Your task to perform on an android device: Show the shopping cart on ebay. Search for "usb-a" on ebay, select the first entry, and add it to the cart. Image 0: 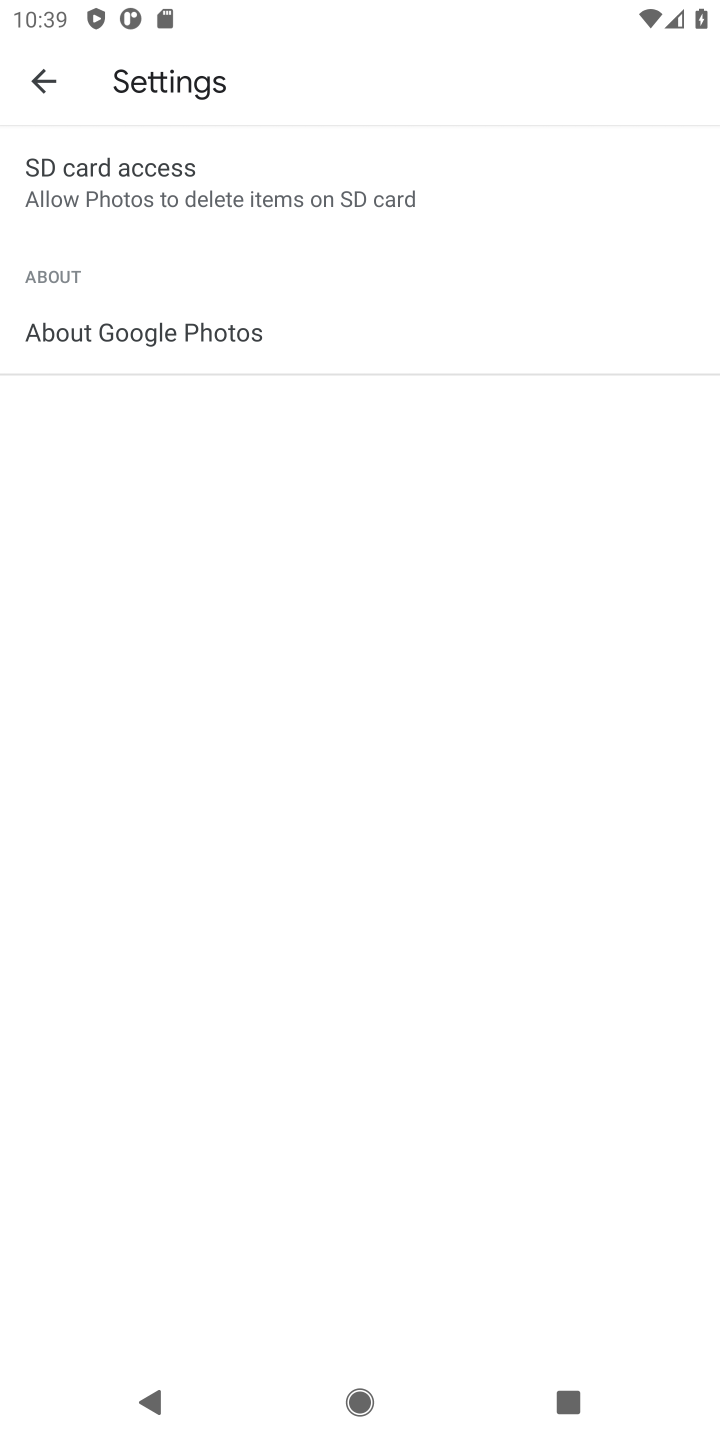
Step 0: press home button
Your task to perform on an android device: Show the shopping cart on ebay. Search for "usb-a" on ebay, select the first entry, and add it to the cart. Image 1: 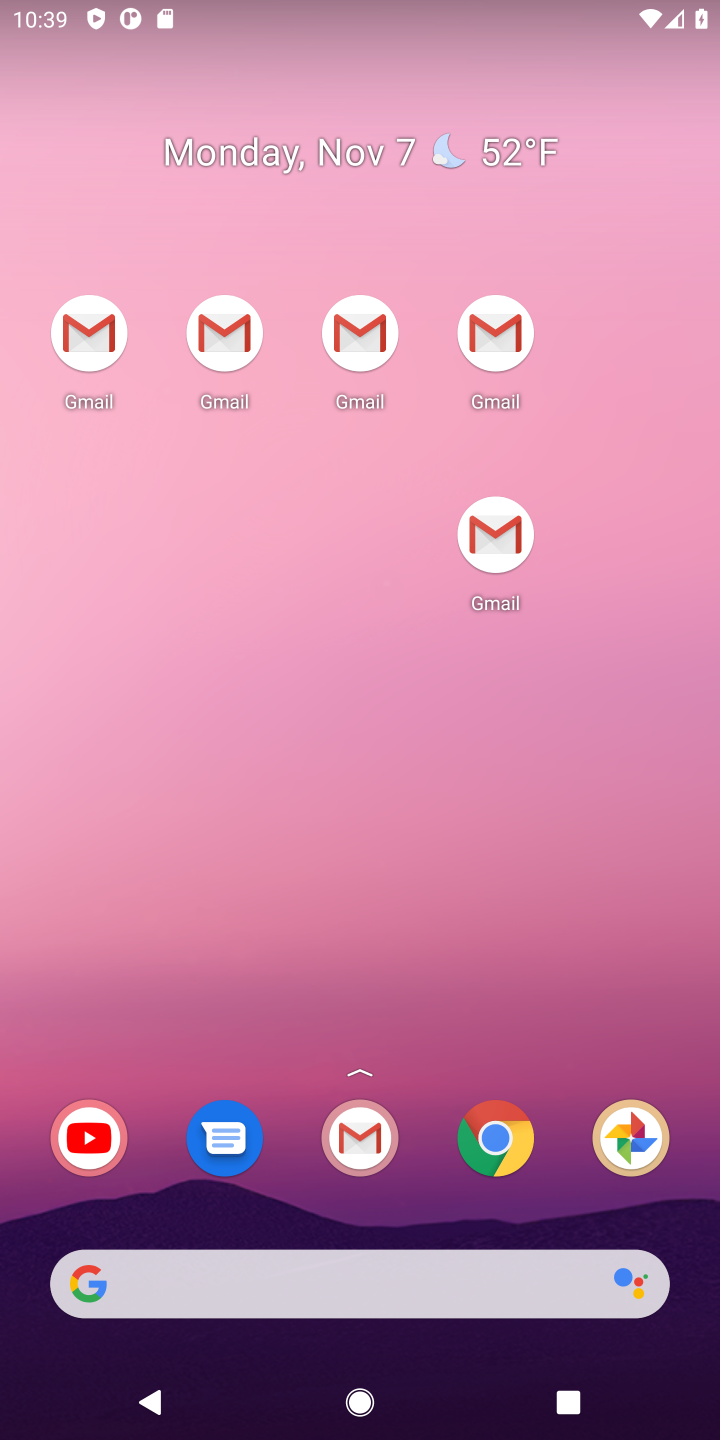
Step 1: drag from (354, 1118) to (489, 62)
Your task to perform on an android device: Show the shopping cart on ebay. Search for "usb-a" on ebay, select the first entry, and add it to the cart. Image 2: 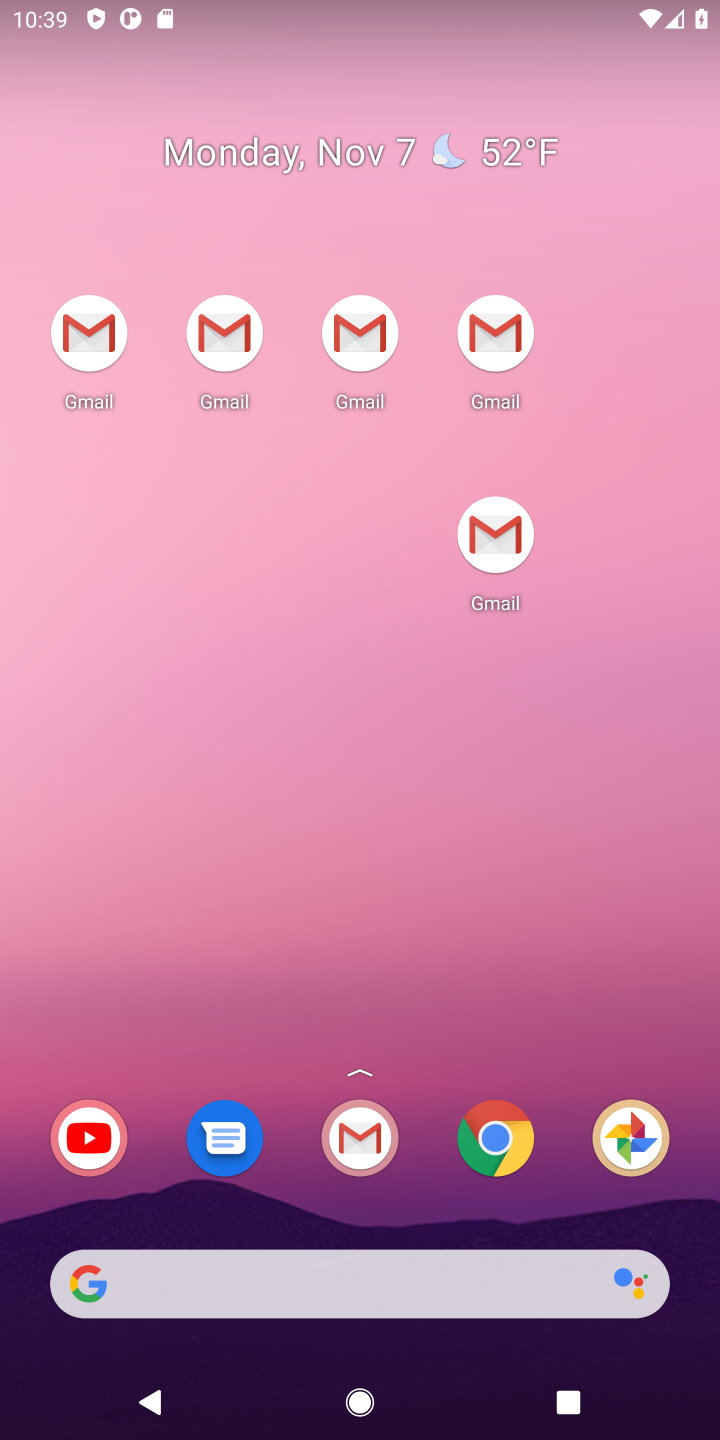
Step 2: drag from (392, 816) to (533, 2)
Your task to perform on an android device: Show the shopping cart on ebay. Search for "usb-a" on ebay, select the first entry, and add it to the cart. Image 3: 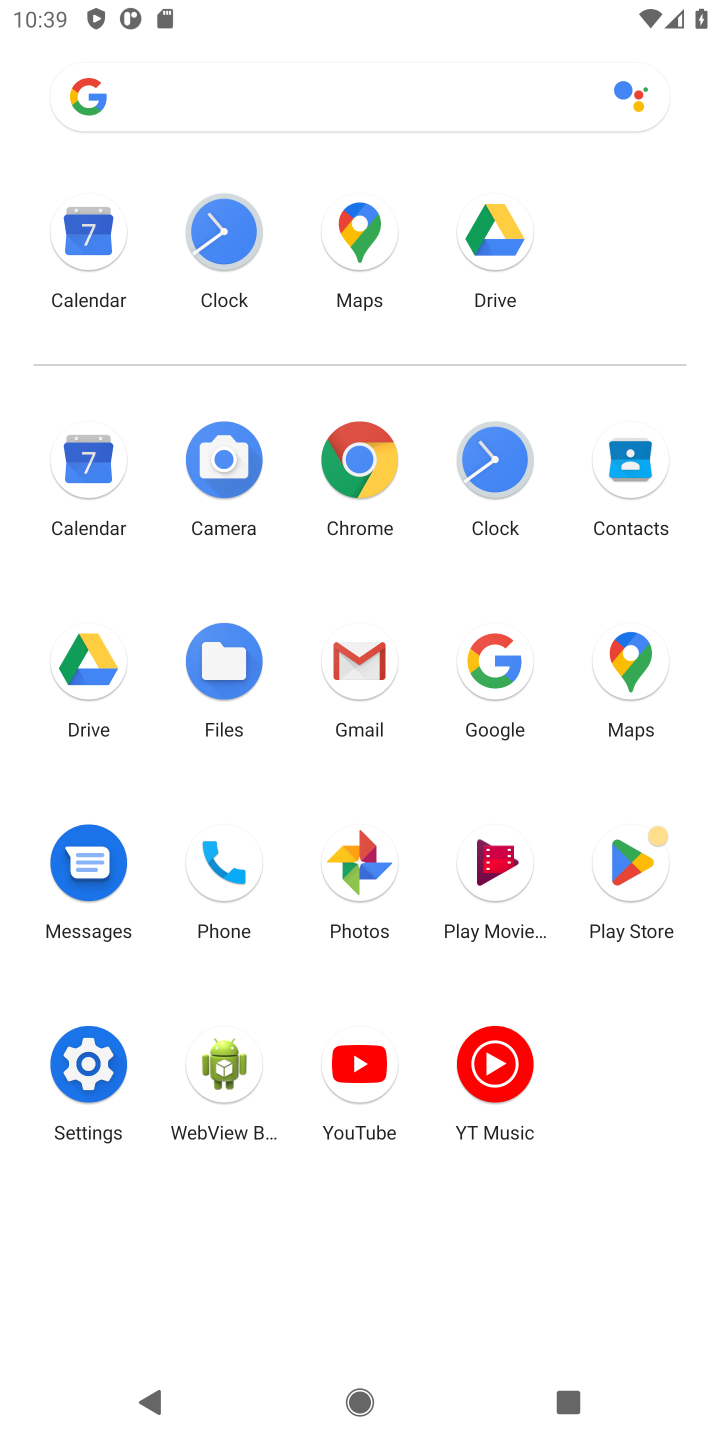
Step 3: click (470, 714)
Your task to perform on an android device: Show the shopping cart on ebay. Search for "usb-a" on ebay, select the first entry, and add it to the cart. Image 4: 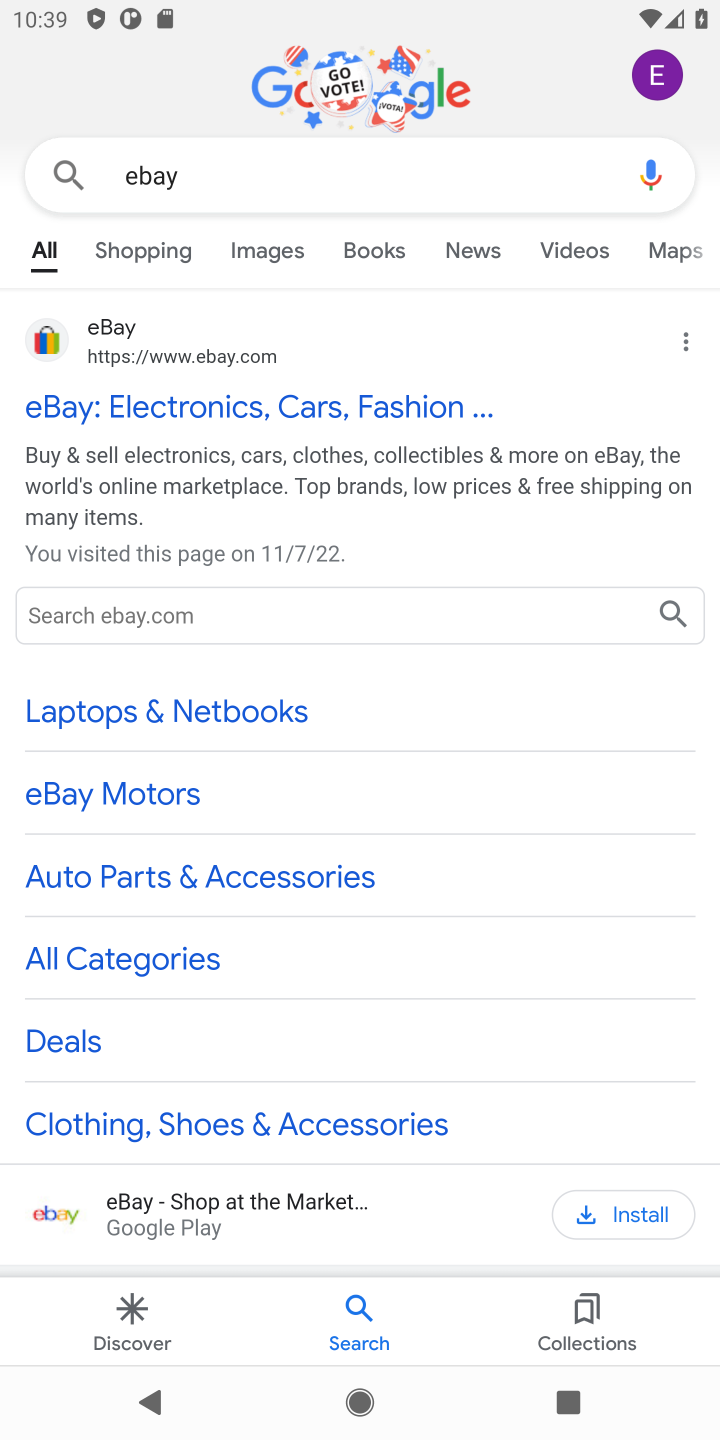
Step 4: click (142, 418)
Your task to perform on an android device: Show the shopping cart on ebay. Search for "usb-a" on ebay, select the first entry, and add it to the cart. Image 5: 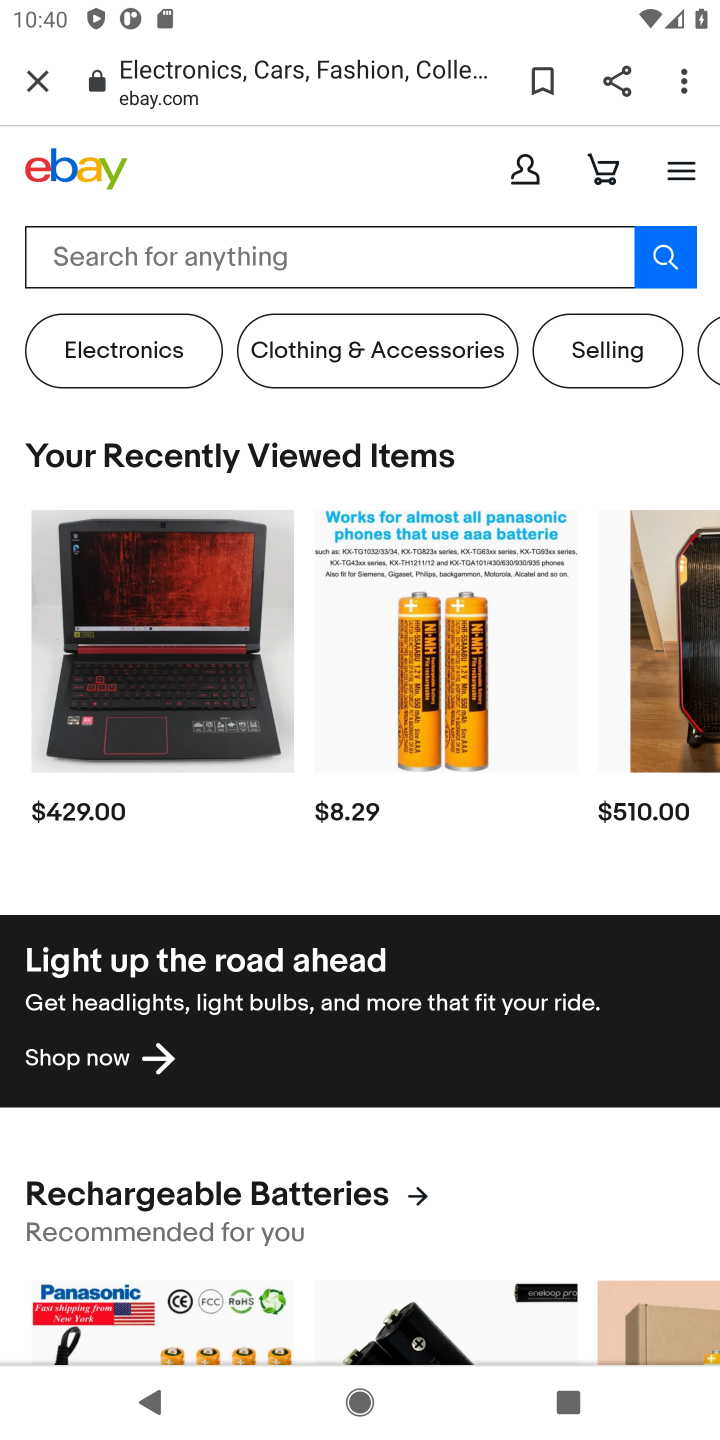
Step 5: click (386, 259)
Your task to perform on an android device: Show the shopping cart on ebay. Search for "usb-a" on ebay, select the first entry, and add it to the cart. Image 6: 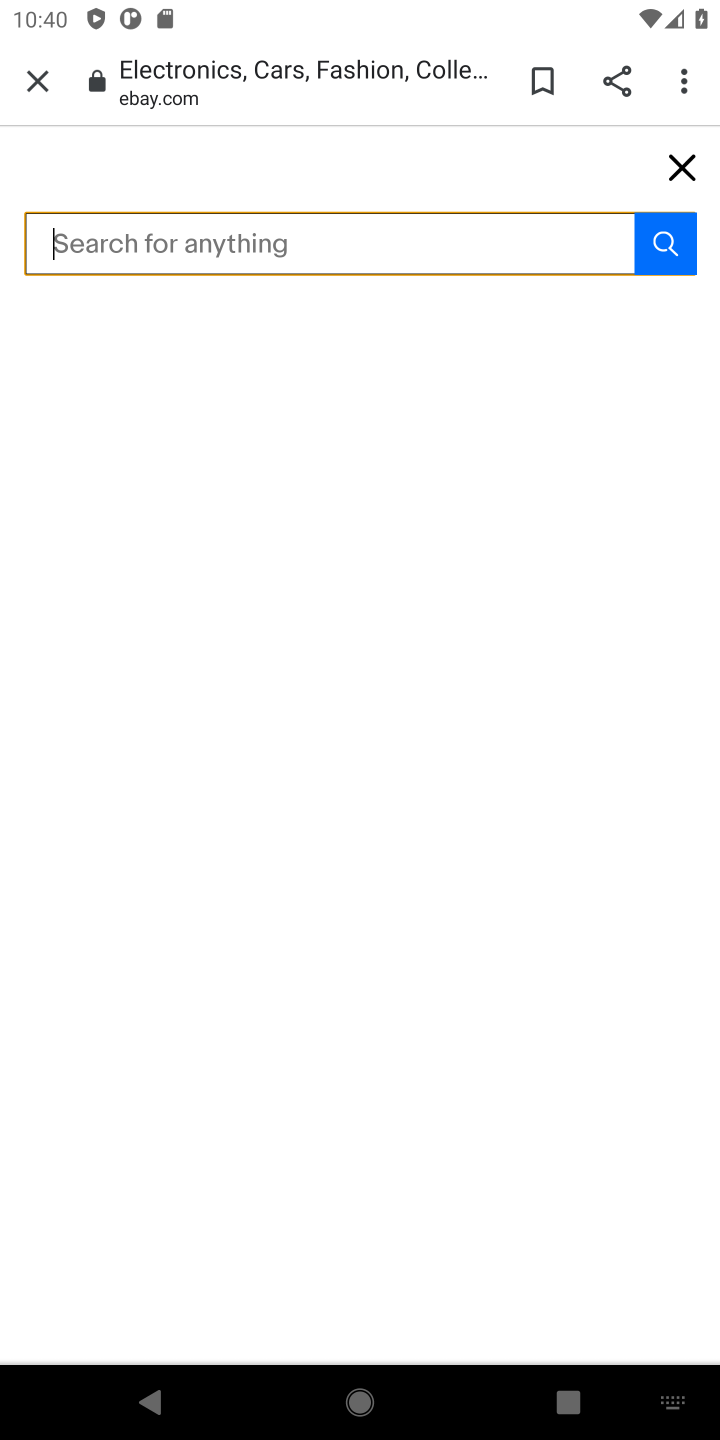
Step 6: type "usb-a"
Your task to perform on an android device: Show the shopping cart on ebay. Search for "usb-a" on ebay, select the first entry, and add it to the cart. Image 7: 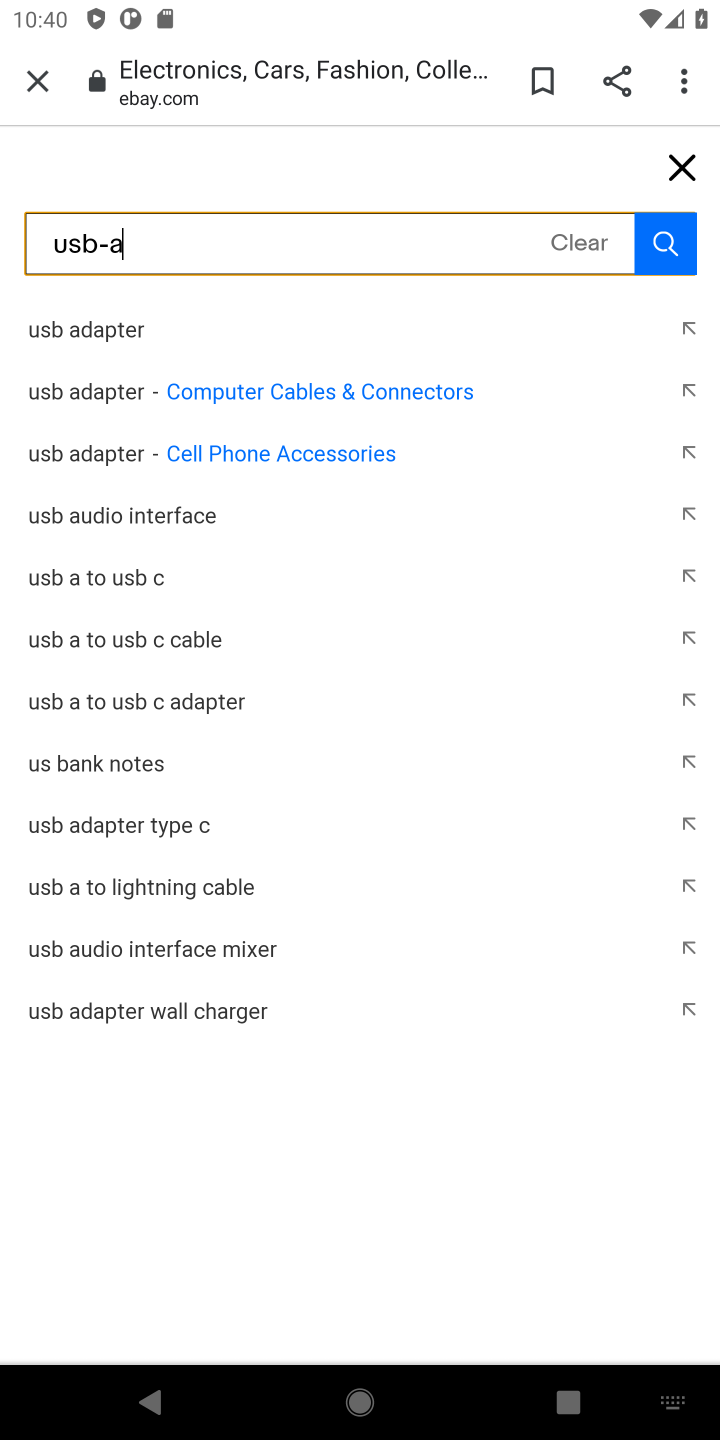
Step 7: click (655, 255)
Your task to perform on an android device: Show the shopping cart on ebay. Search for "usb-a" on ebay, select the first entry, and add it to the cart. Image 8: 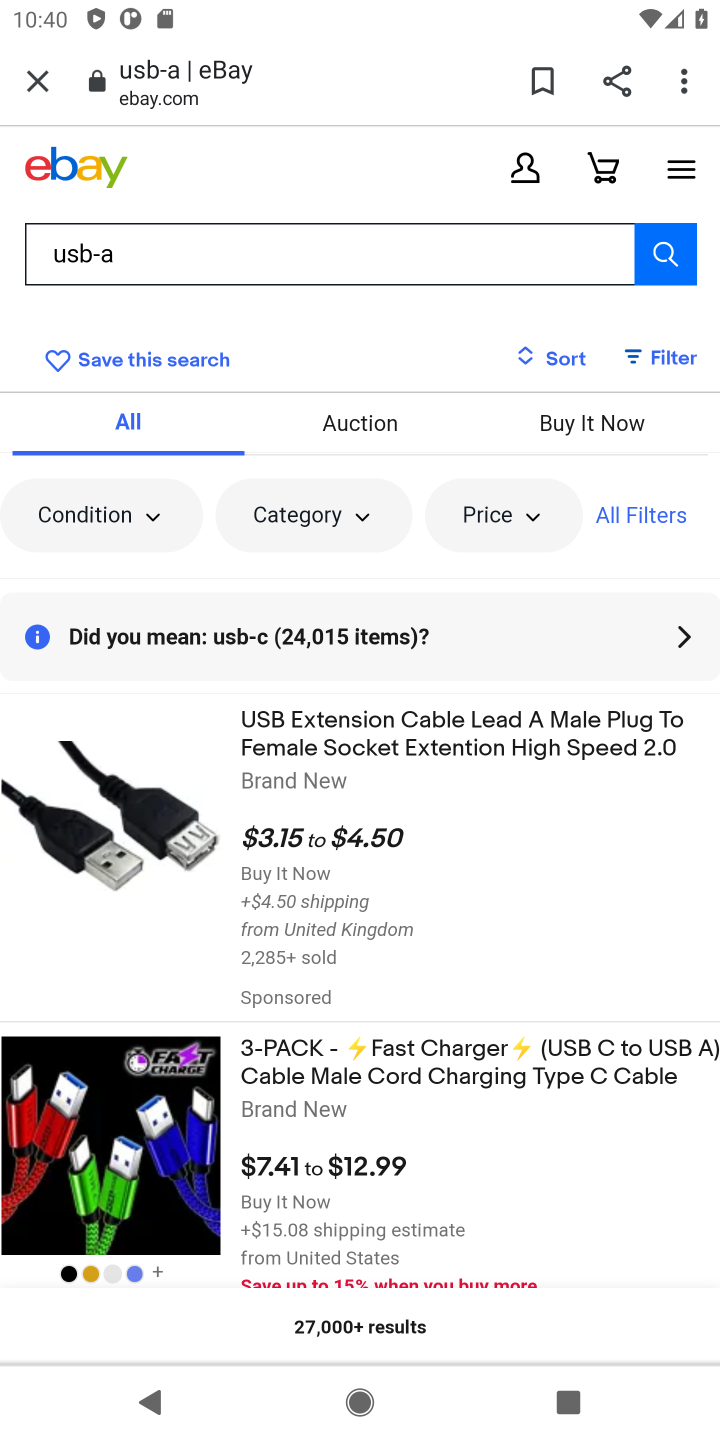
Step 8: click (457, 760)
Your task to perform on an android device: Show the shopping cart on ebay. Search for "usb-a" on ebay, select the first entry, and add it to the cart. Image 9: 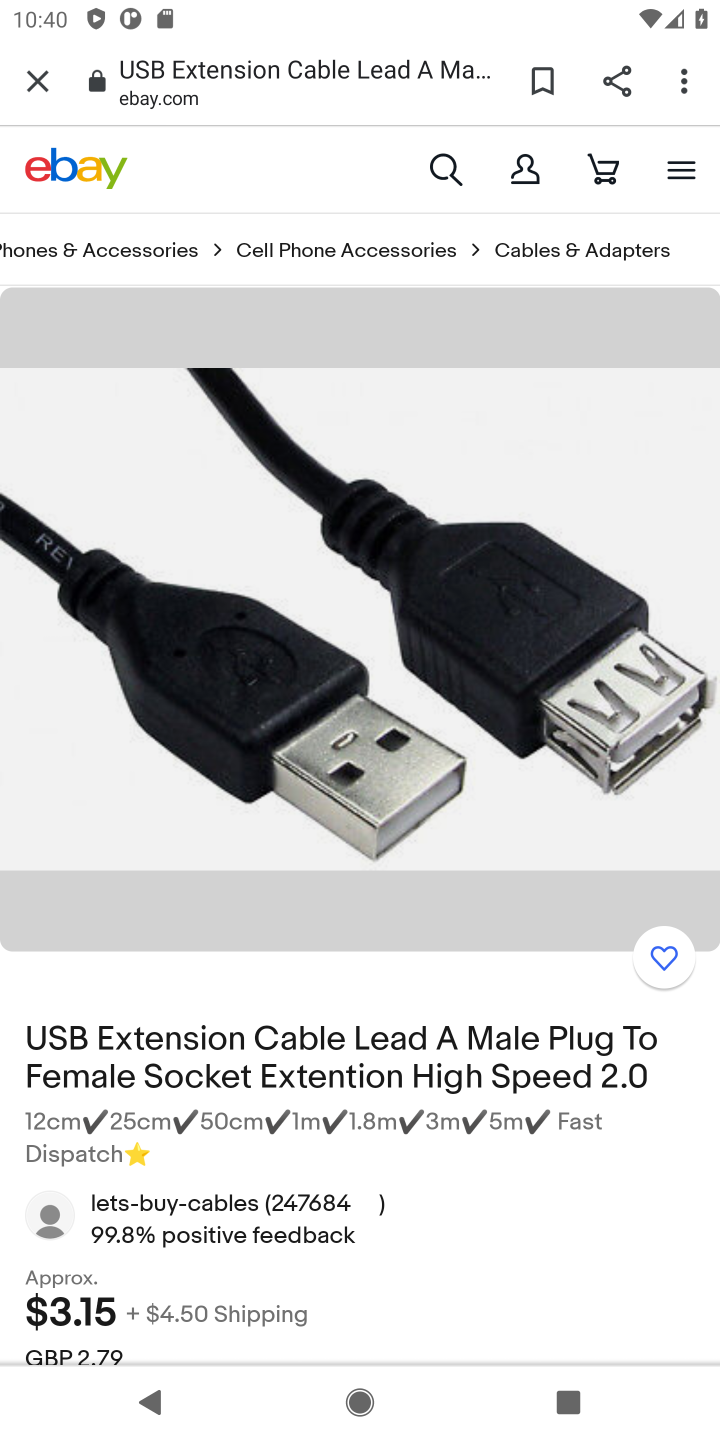
Step 9: drag from (491, 1018) to (537, 195)
Your task to perform on an android device: Show the shopping cart on ebay. Search for "usb-a" on ebay, select the first entry, and add it to the cart. Image 10: 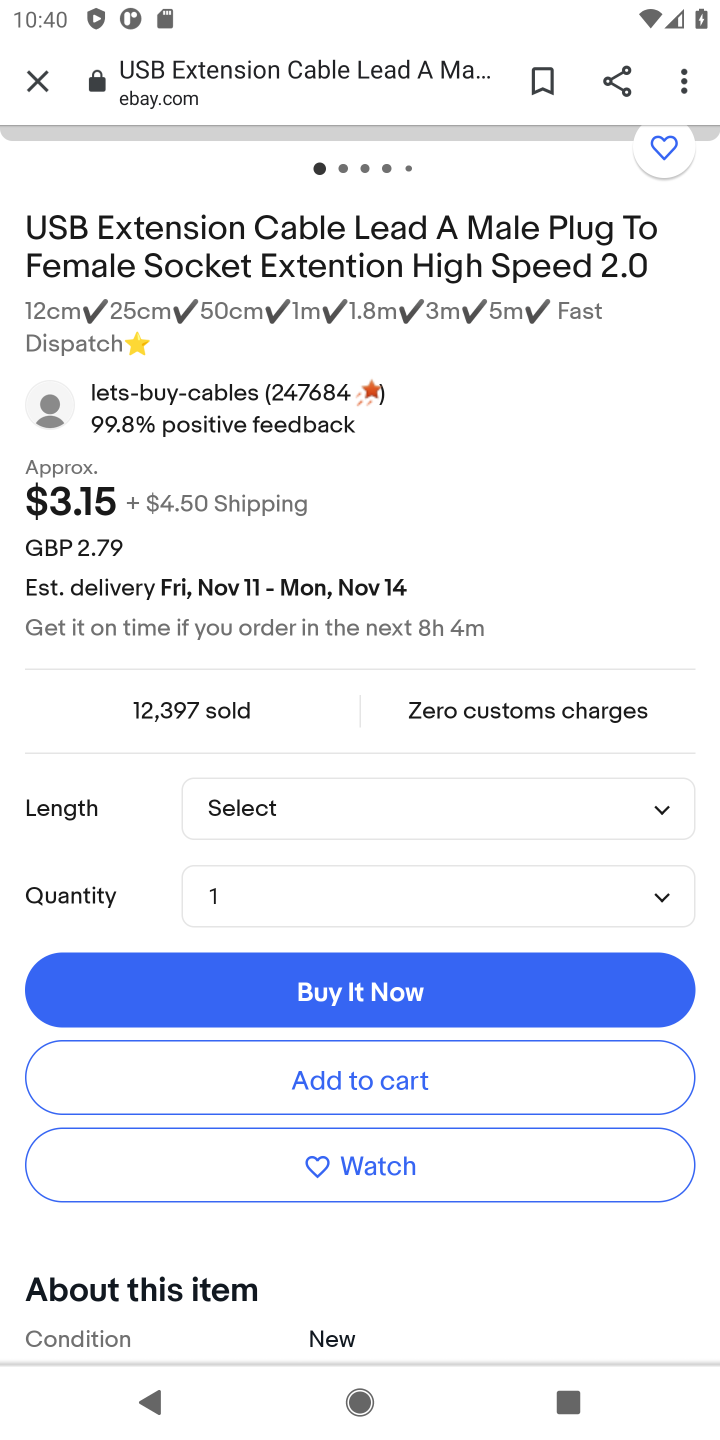
Step 10: click (443, 1080)
Your task to perform on an android device: Show the shopping cart on ebay. Search for "usb-a" on ebay, select the first entry, and add it to the cart. Image 11: 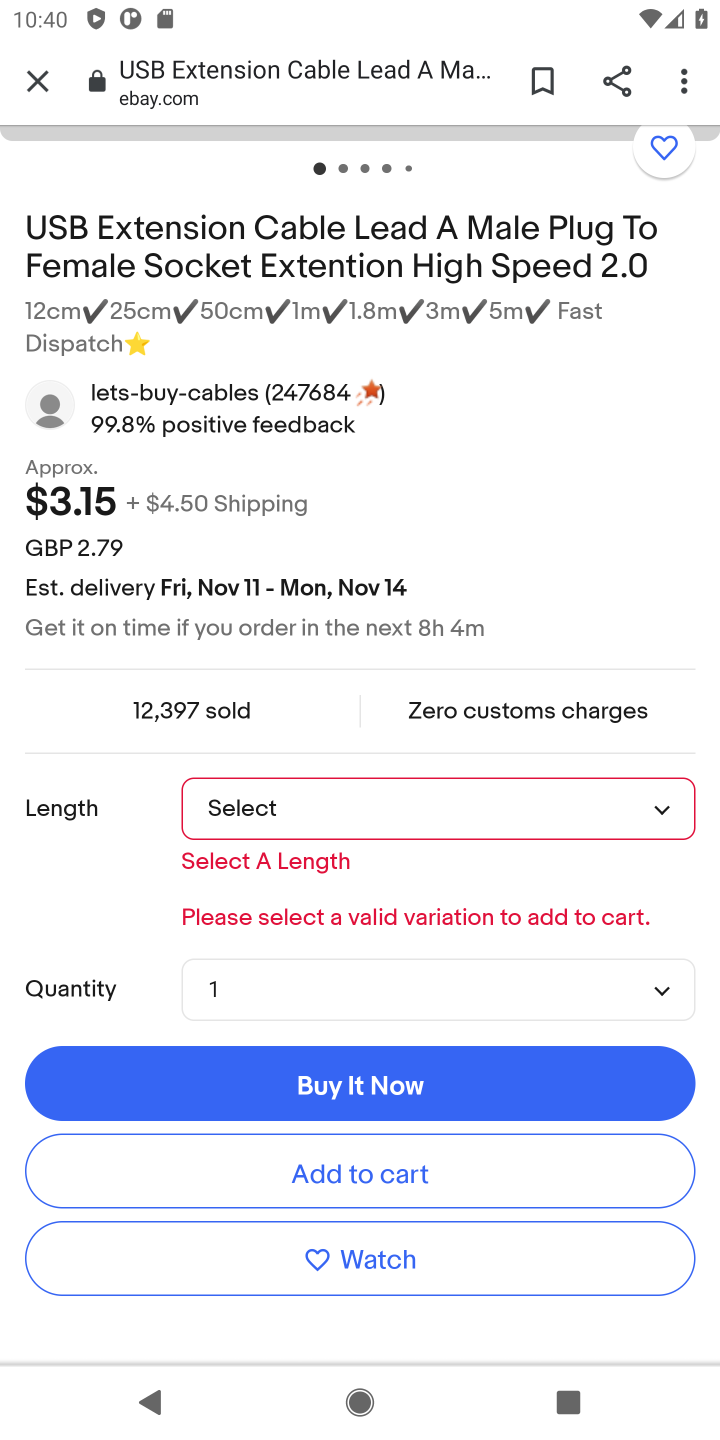
Step 11: click (560, 793)
Your task to perform on an android device: Show the shopping cart on ebay. Search for "usb-a" on ebay, select the first entry, and add it to the cart. Image 12: 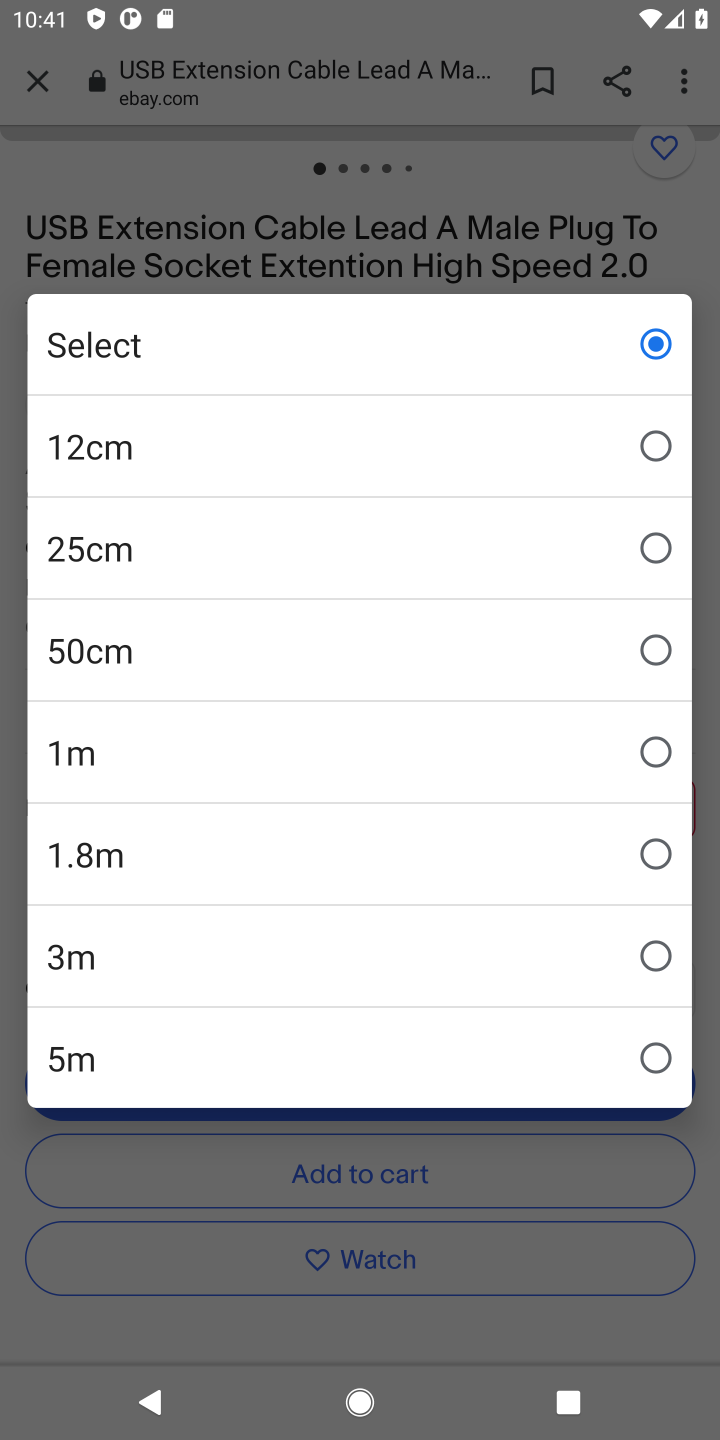
Step 12: click (552, 857)
Your task to perform on an android device: Show the shopping cart on ebay. Search for "usb-a" on ebay, select the first entry, and add it to the cart. Image 13: 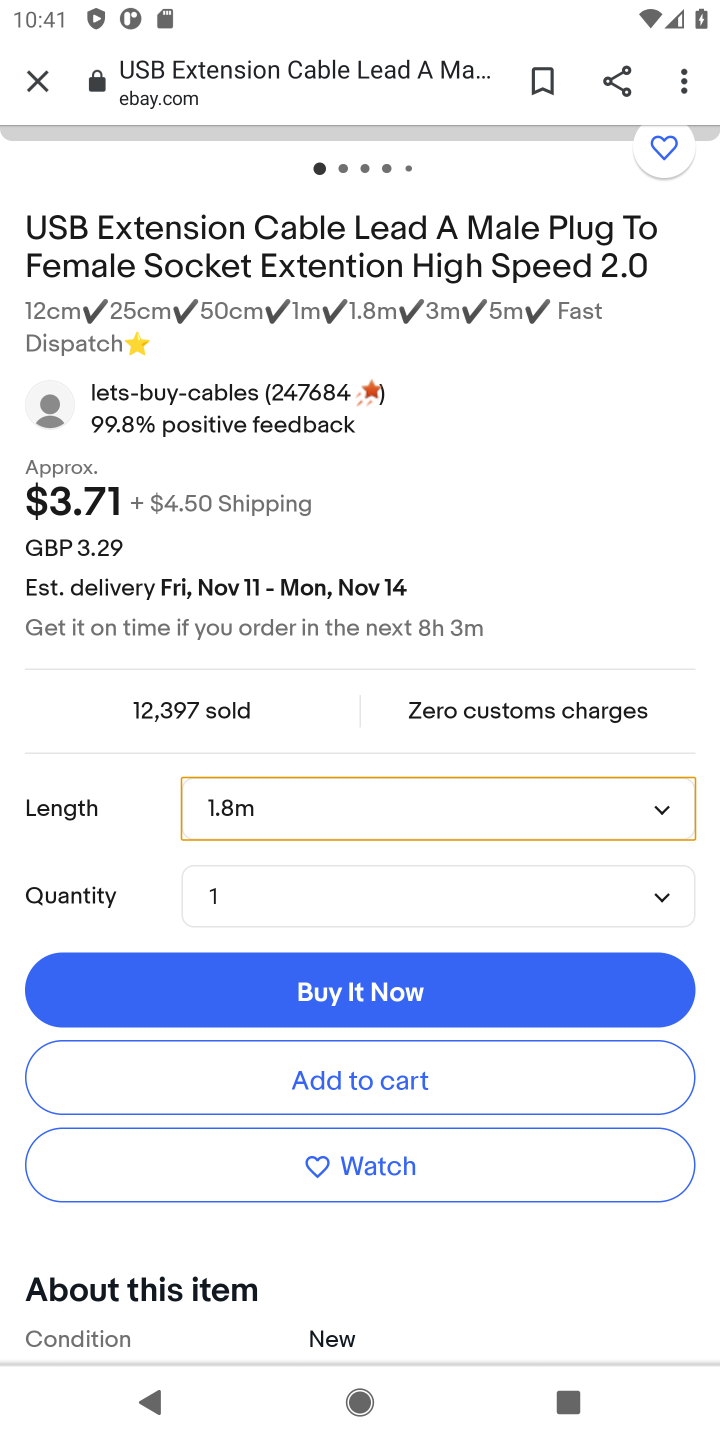
Step 13: click (393, 1092)
Your task to perform on an android device: Show the shopping cart on ebay. Search for "usb-a" on ebay, select the first entry, and add it to the cart. Image 14: 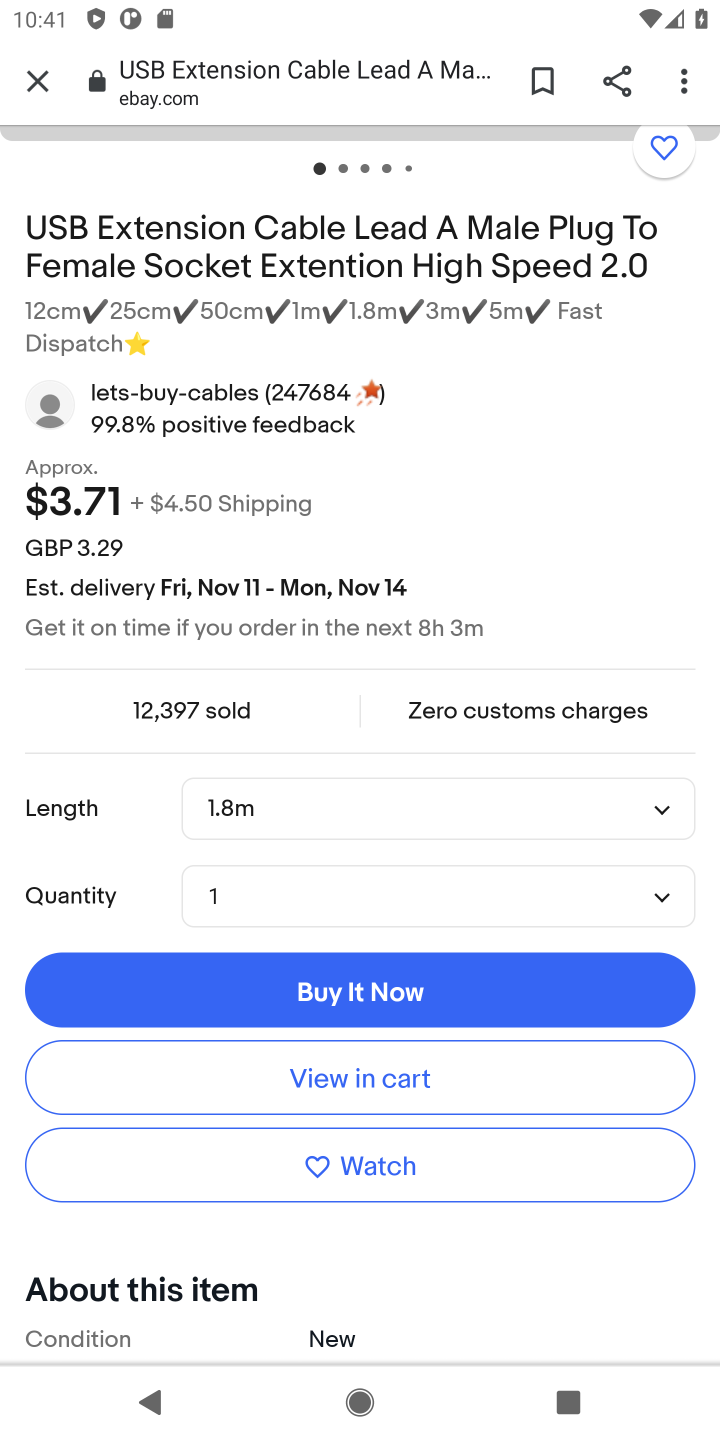
Step 14: task complete